Your task to perform on an android device: turn off priority inbox in the gmail app Image 0: 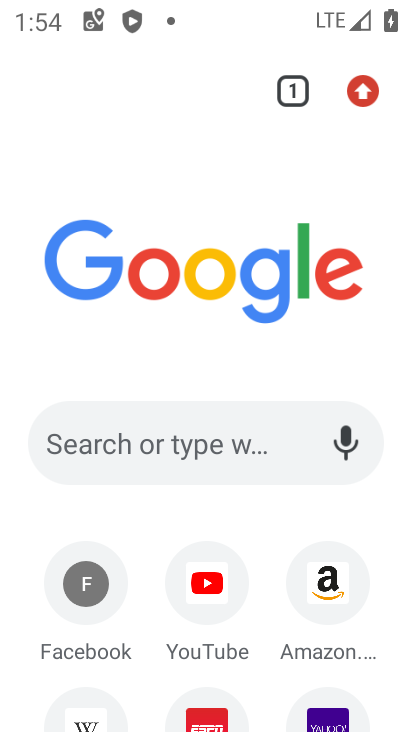
Step 0: press home button
Your task to perform on an android device: turn off priority inbox in the gmail app Image 1: 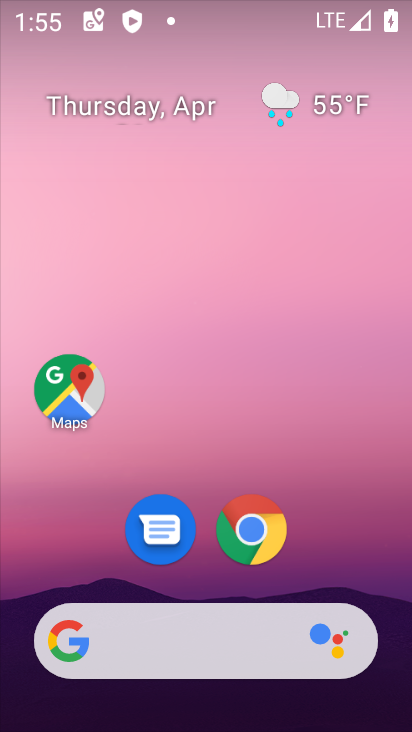
Step 1: drag from (73, 553) to (406, 101)
Your task to perform on an android device: turn off priority inbox in the gmail app Image 2: 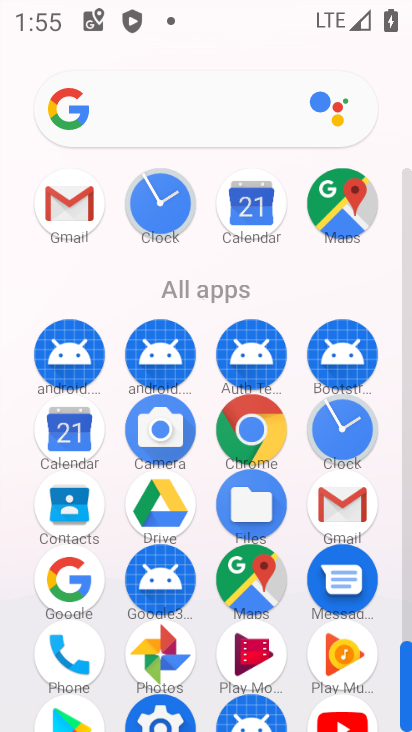
Step 2: click (353, 503)
Your task to perform on an android device: turn off priority inbox in the gmail app Image 3: 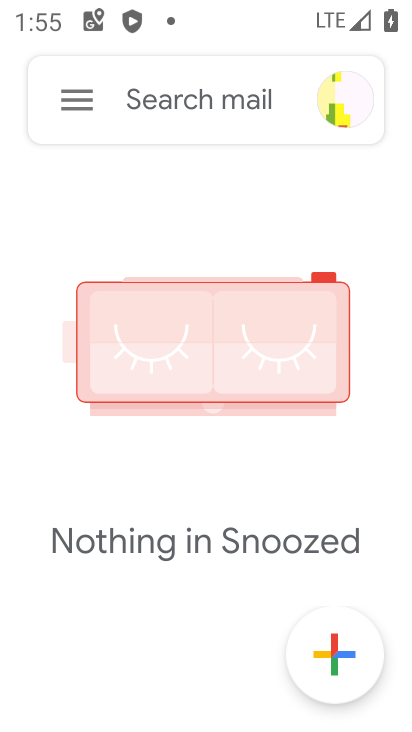
Step 3: click (82, 101)
Your task to perform on an android device: turn off priority inbox in the gmail app Image 4: 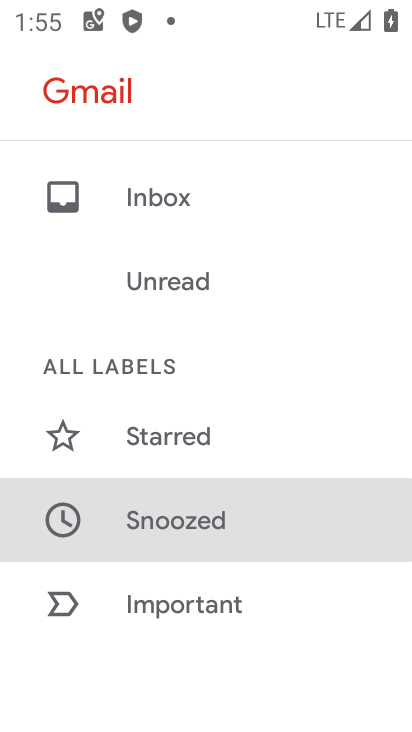
Step 4: drag from (150, 589) to (265, 238)
Your task to perform on an android device: turn off priority inbox in the gmail app Image 5: 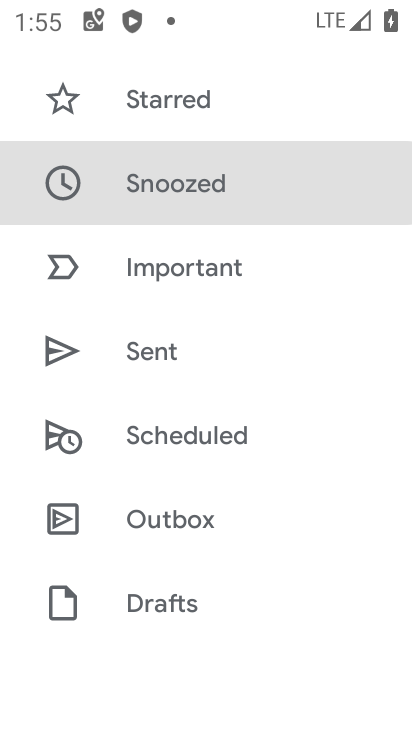
Step 5: drag from (130, 568) to (249, 205)
Your task to perform on an android device: turn off priority inbox in the gmail app Image 6: 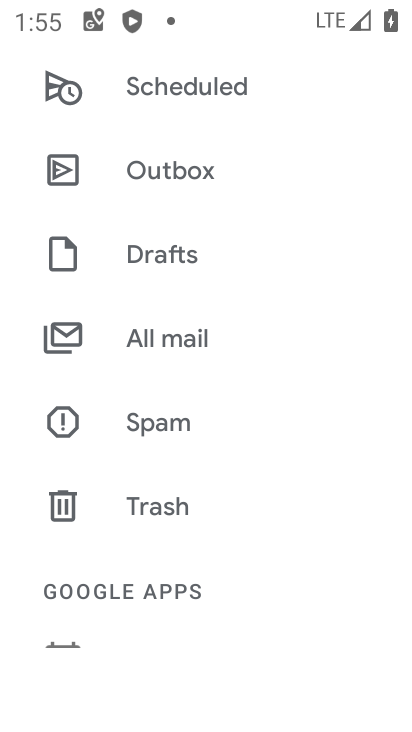
Step 6: drag from (148, 526) to (281, 167)
Your task to perform on an android device: turn off priority inbox in the gmail app Image 7: 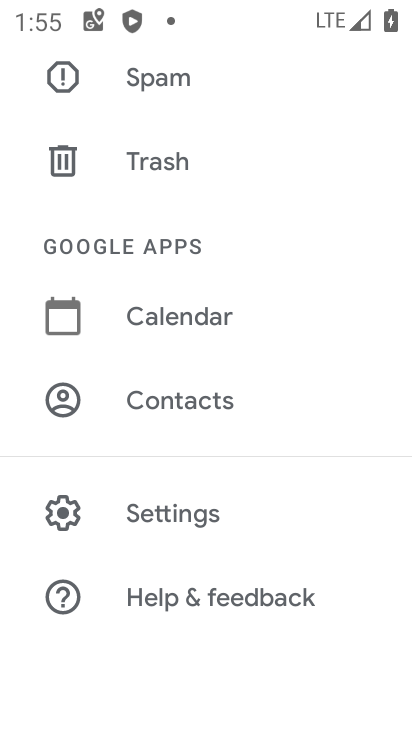
Step 7: drag from (198, 531) to (290, 210)
Your task to perform on an android device: turn off priority inbox in the gmail app Image 8: 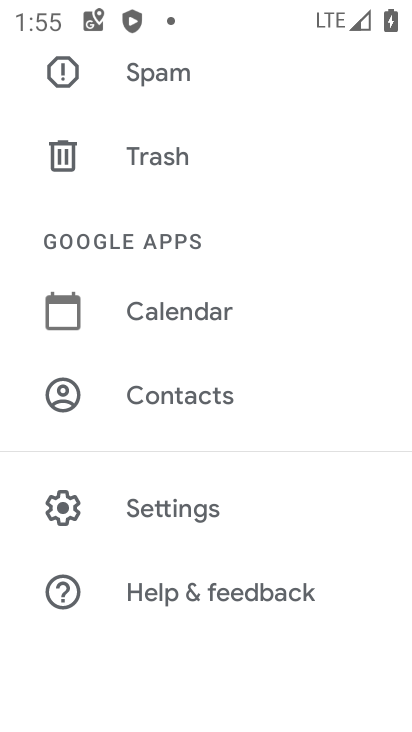
Step 8: click (142, 503)
Your task to perform on an android device: turn off priority inbox in the gmail app Image 9: 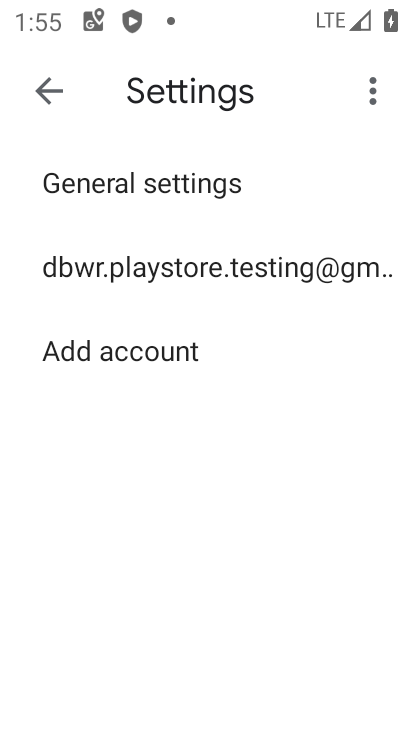
Step 9: click (255, 263)
Your task to perform on an android device: turn off priority inbox in the gmail app Image 10: 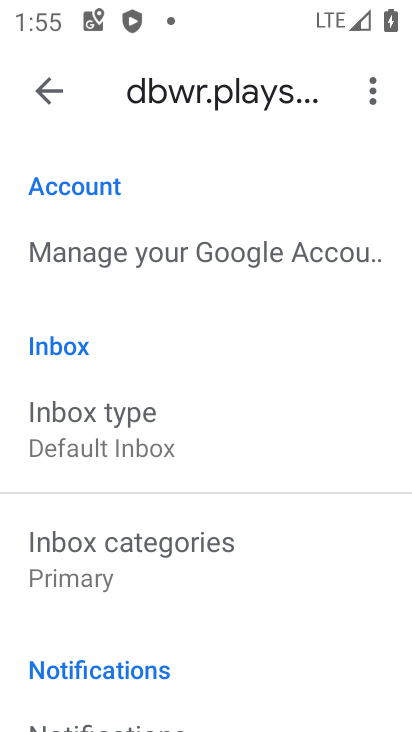
Step 10: click (90, 430)
Your task to perform on an android device: turn off priority inbox in the gmail app Image 11: 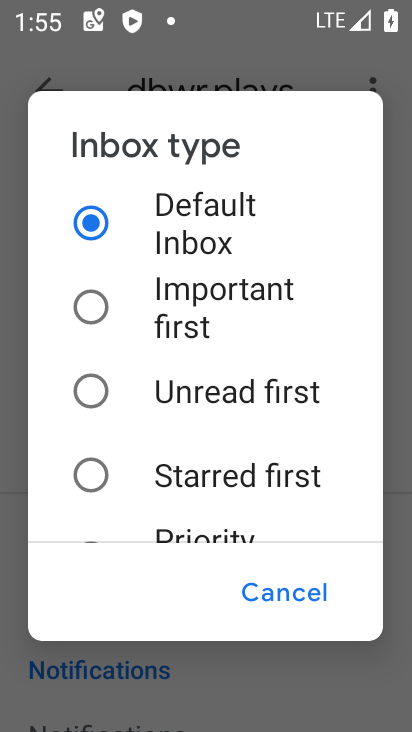
Step 11: drag from (235, 500) to (323, 217)
Your task to perform on an android device: turn off priority inbox in the gmail app Image 12: 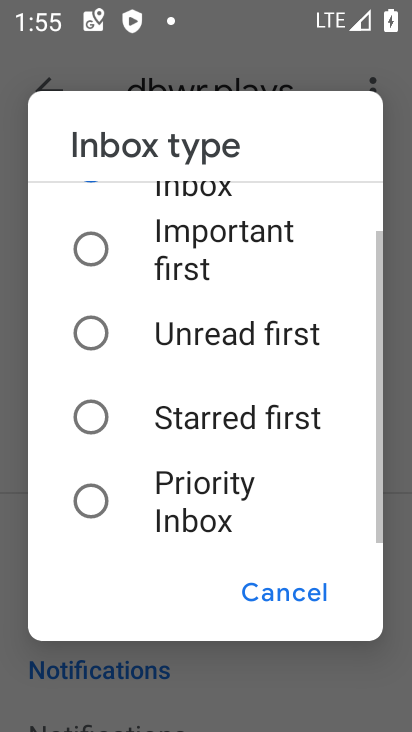
Step 12: drag from (210, 418) to (263, 241)
Your task to perform on an android device: turn off priority inbox in the gmail app Image 13: 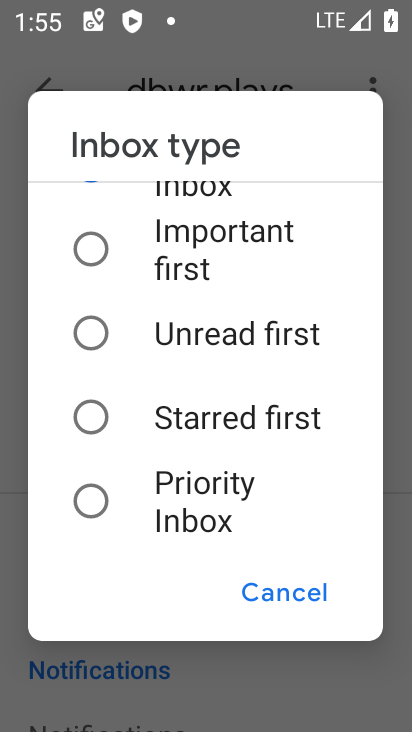
Step 13: click (289, 595)
Your task to perform on an android device: turn off priority inbox in the gmail app Image 14: 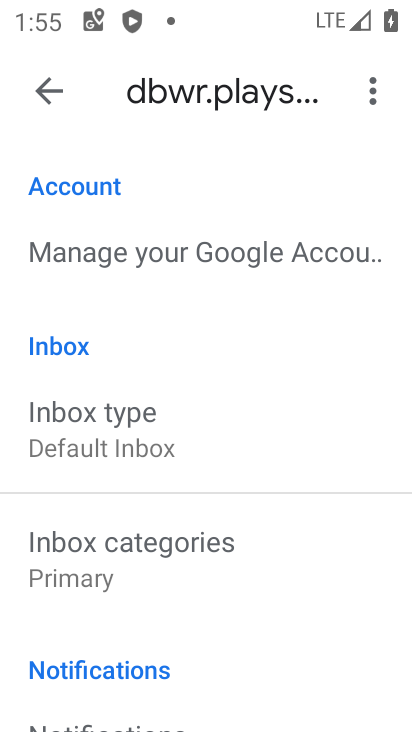
Step 14: task complete